Your task to perform on an android device: check data usage Image 0: 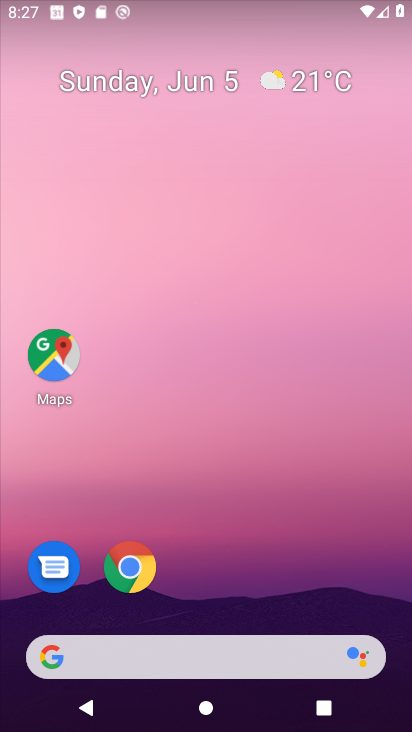
Step 0: drag from (188, 645) to (220, 209)
Your task to perform on an android device: check data usage Image 1: 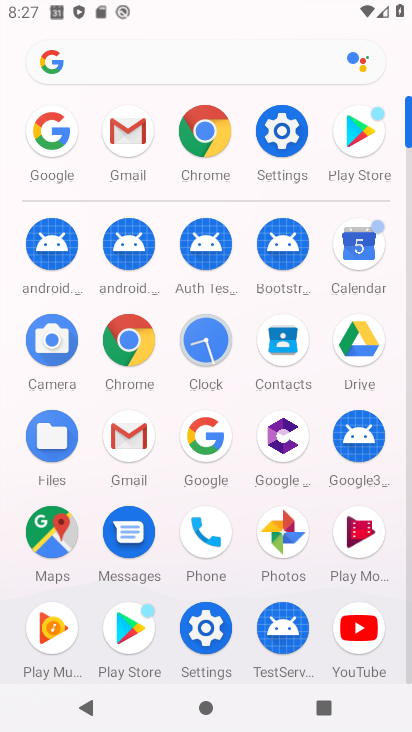
Step 1: click (279, 150)
Your task to perform on an android device: check data usage Image 2: 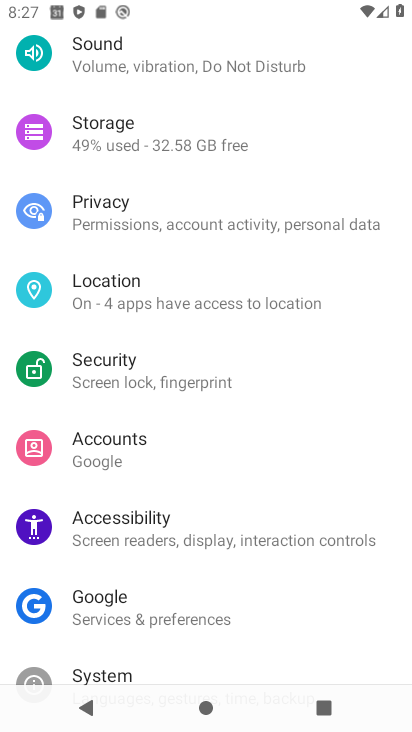
Step 2: drag from (176, 76) to (174, 533)
Your task to perform on an android device: check data usage Image 3: 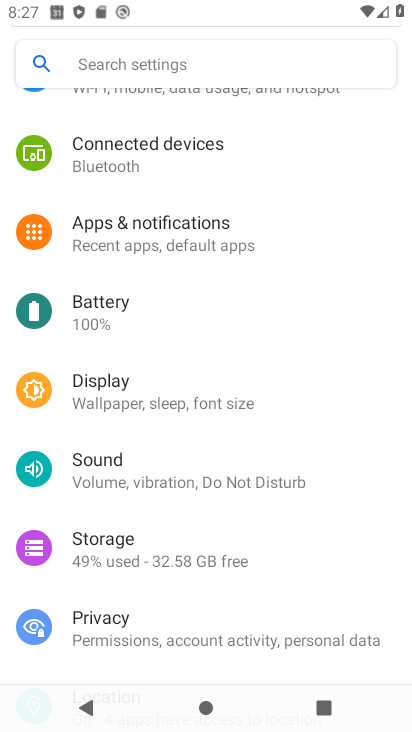
Step 3: drag from (142, 130) to (184, 558)
Your task to perform on an android device: check data usage Image 4: 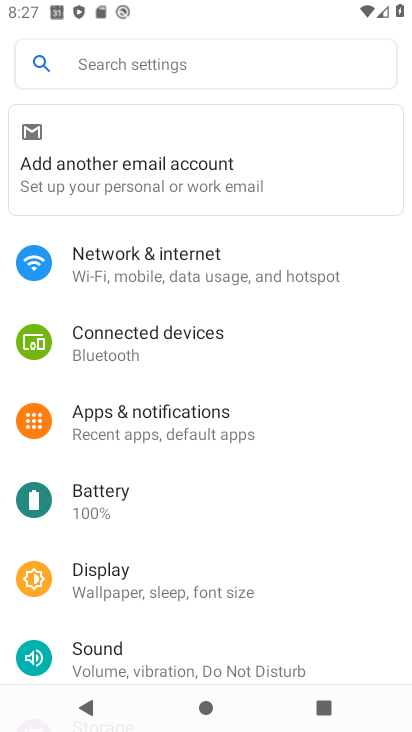
Step 4: click (166, 265)
Your task to perform on an android device: check data usage Image 5: 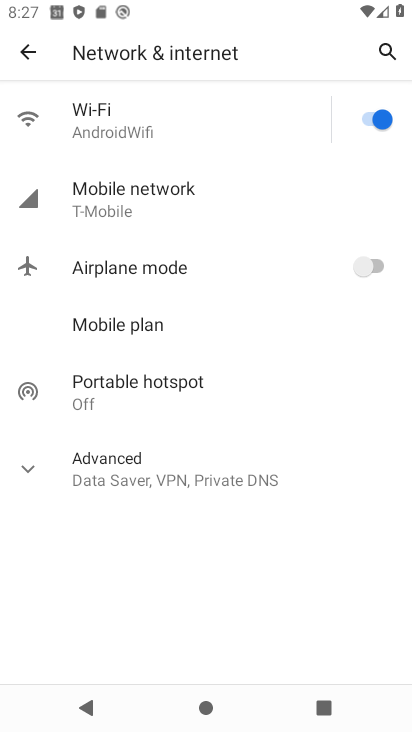
Step 5: click (157, 467)
Your task to perform on an android device: check data usage Image 6: 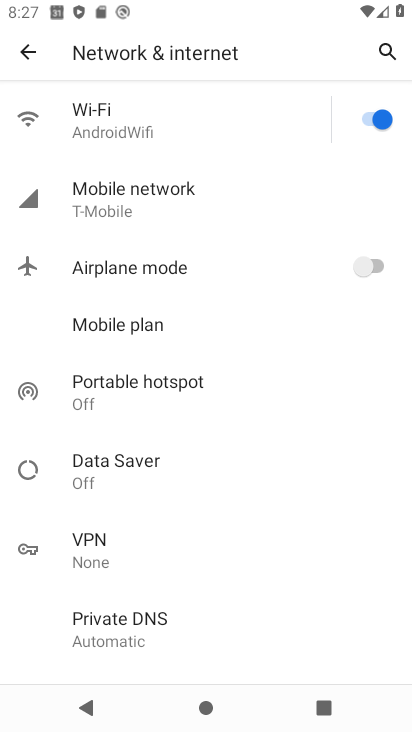
Step 6: click (135, 204)
Your task to perform on an android device: check data usage Image 7: 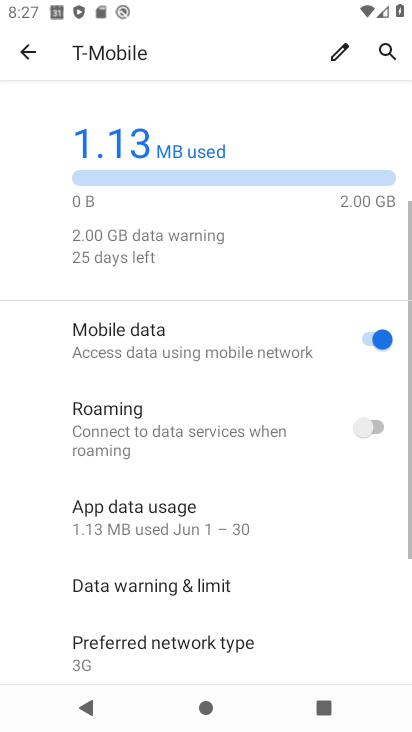
Step 7: task complete